Your task to perform on an android device: Go to accessibility settings Image 0: 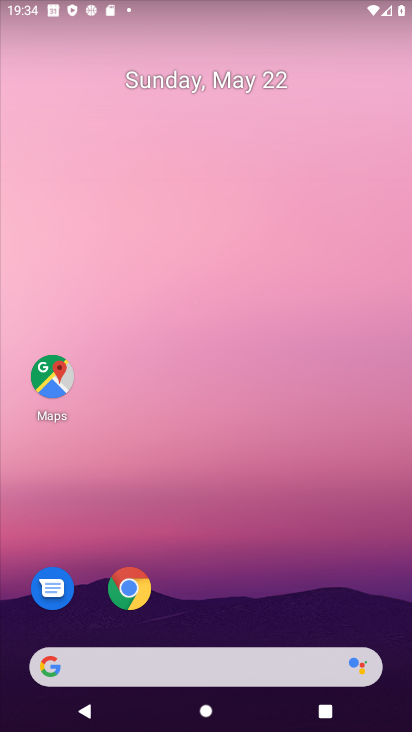
Step 0: drag from (239, 552) to (206, 92)
Your task to perform on an android device: Go to accessibility settings Image 1: 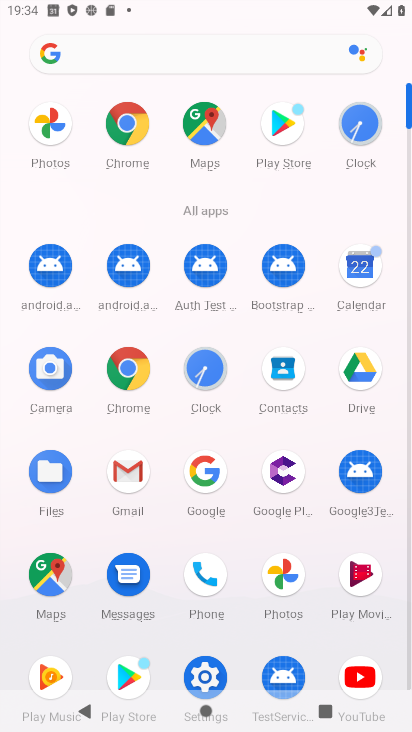
Step 1: click (202, 664)
Your task to perform on an android device: Go to accessibility settings Image 2: 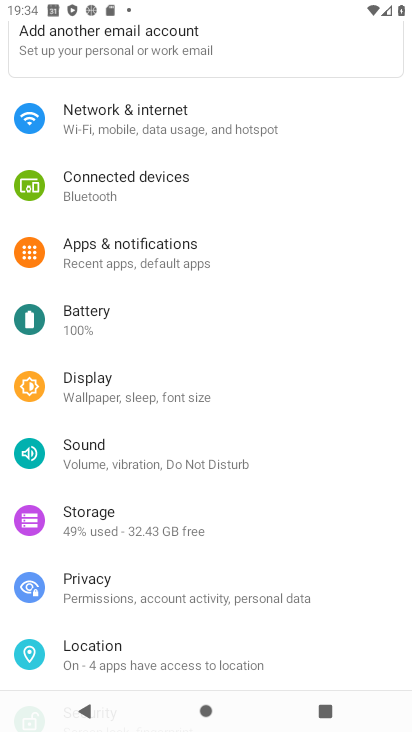
Step 2: drag from (299, 534) to (265, 240)
Your task to perform on an android device: Go to accessibility settings Image 3: 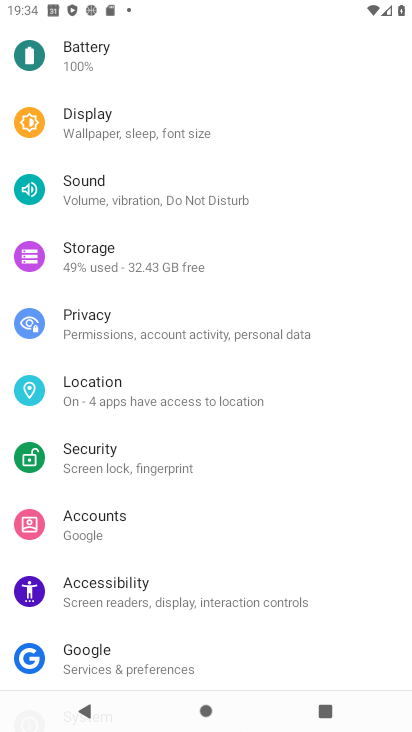
Step 3: click (95, 588)
Your task to perform on an android device: Go to accessibility settings Image 4: 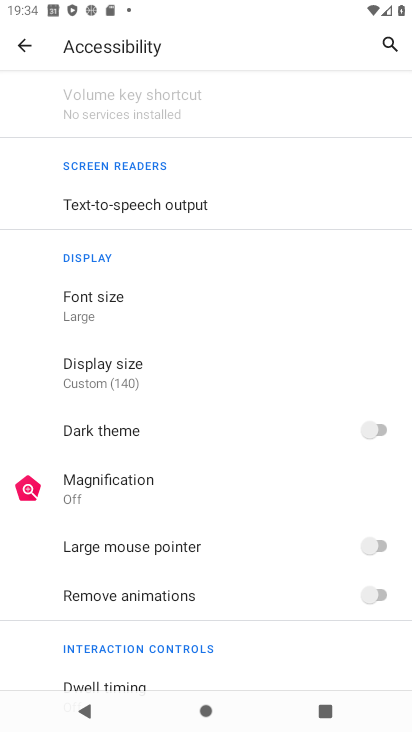
Step 4: task complete